Your task to perform on an android device: Open battery settings Image 0: 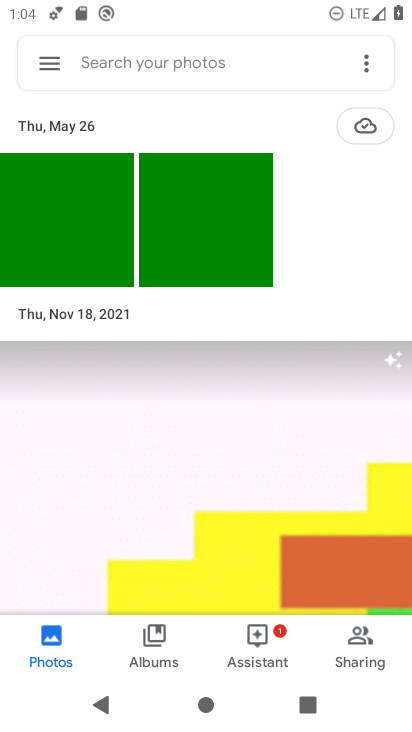
Step 0: press home button
Your task to perform on an android device: Open battery settings Image 1: 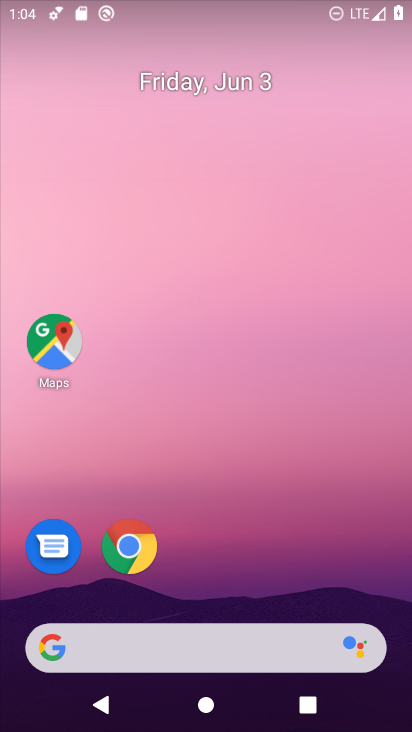
Step 1: drag from (250, 550) to (229, 108)
Your task to perform on an android device: Open battery settings Image 2: 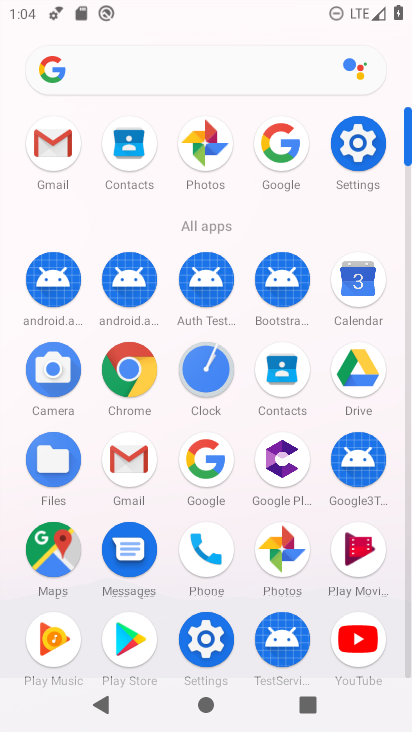
Step 2: click (357, 143)
Your task to perform on an android device: Open battery settings Image 3: 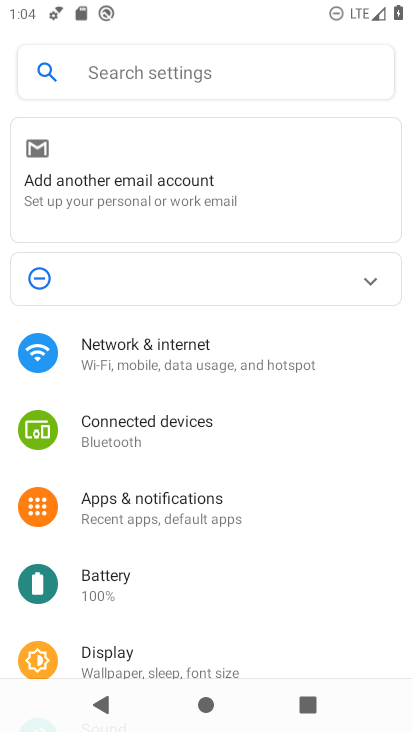
Step 3: click (101, 576)
Your task to perform on an android device: Open battery settings Image 4: 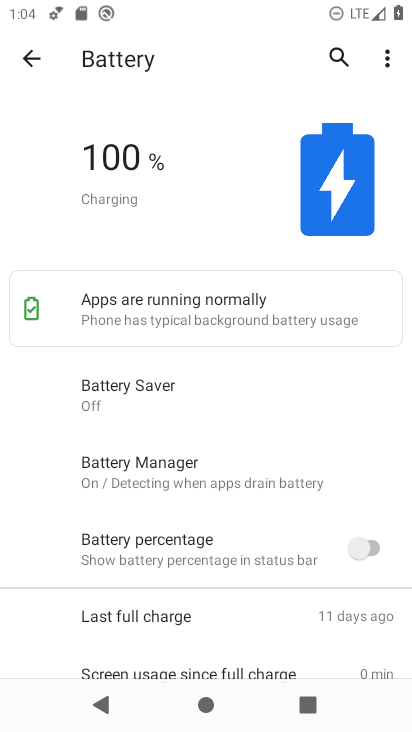
Step 4: task complete